Your task to perform on an android device: Searchfor good French restaurants Image 0: 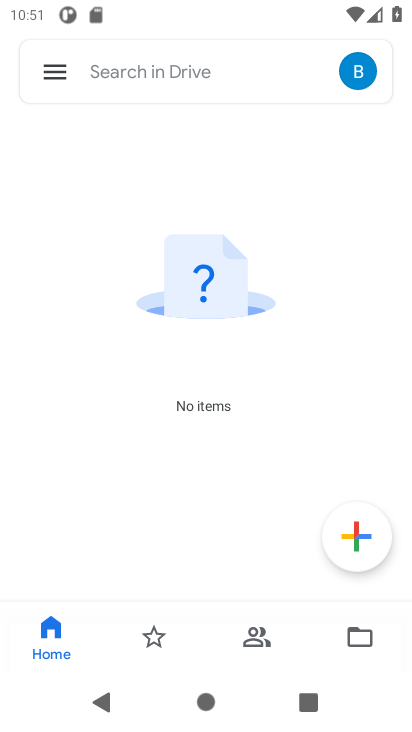
Step 0: press home button
Your task to perform on an android device: Searchfor good French restaurants Image 1: 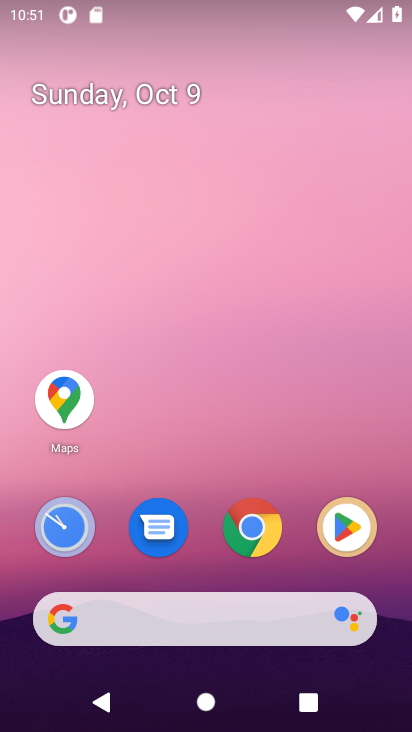
Step 1: click (251, 536)
Your task to perform on an android device: Searchfor good French restaurants Image 2: 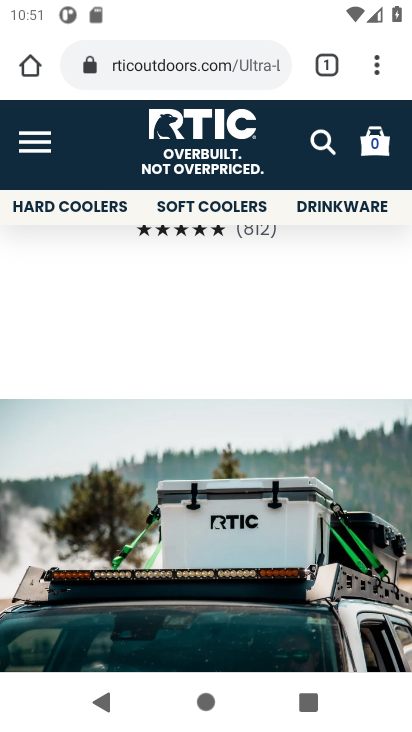
Step 2: click (181, 71)
Your task to perform on an android device: Searchfor good French restaurants Image 3: 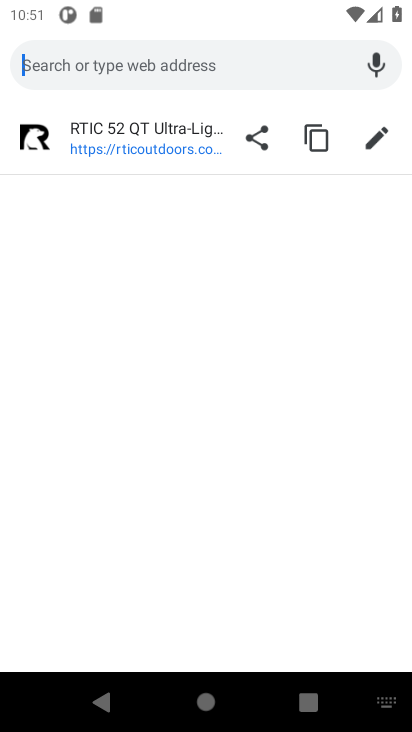
Step 3: type "good French restaurants"
Your task to perform on an android device: Searchfor good French restaurants Image 4: 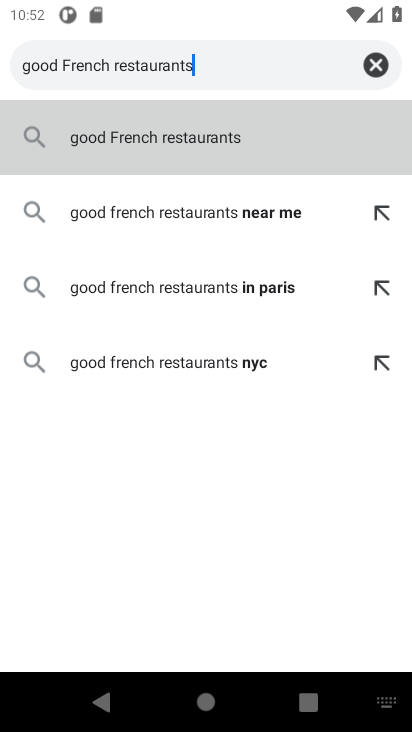
Step 4: click (111, 141)
Your task to perform on an android device: Searchfor good French restaurants Image 5: 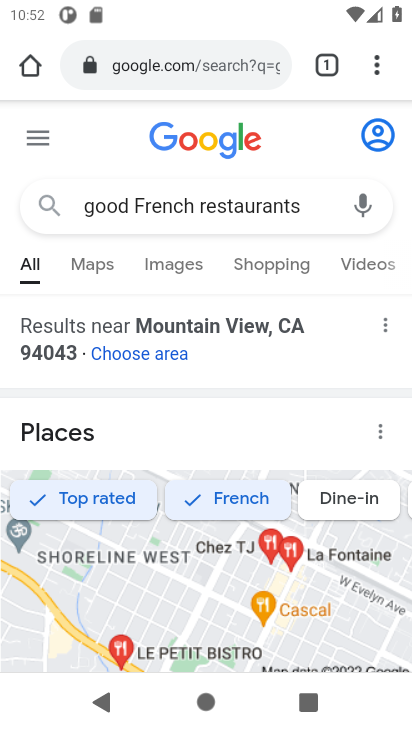
Step 5: task complete